Your task to perform on an android device: Open Youtube and go to "Your channel" Image 0: 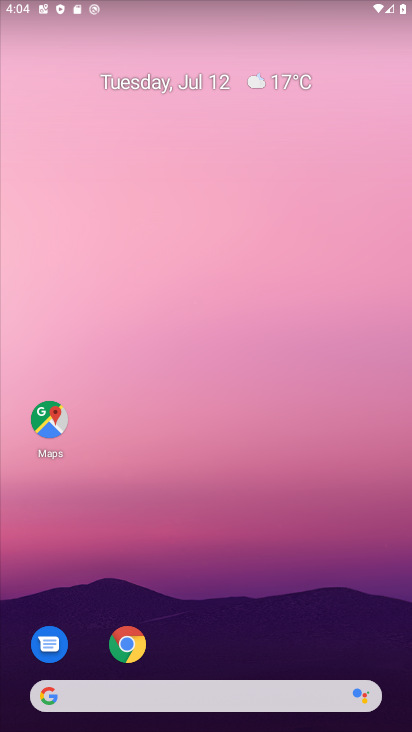
Step 0: drag from (267, 648) to (276, 119)
Your task to perform on an android device: Open Youtube and go to "Your channel" Image 1: 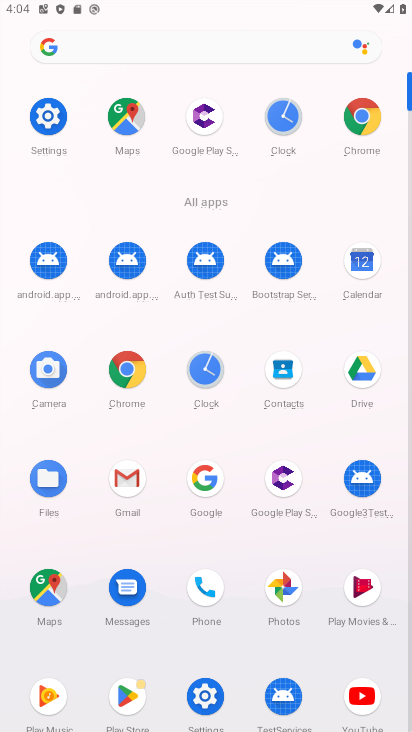
Step 1: click (368, 699)
Your task to perform on an android device: Open Youtube and go to "Your channel" Image 2: 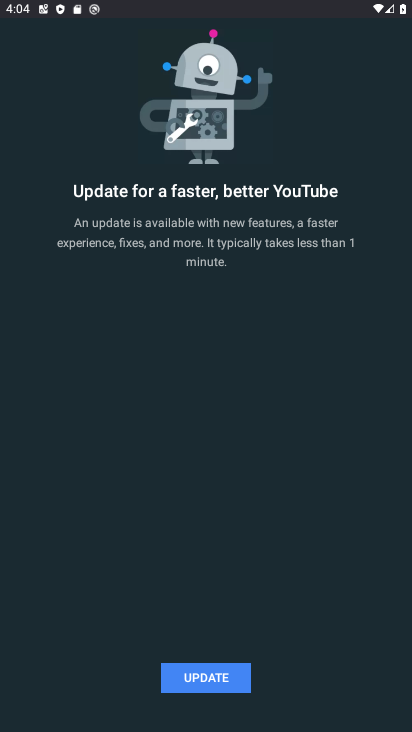
Step 2: click (232, 672)
Your task to perform on an android device: Open Youtube and go to "Your channel" Image 3: 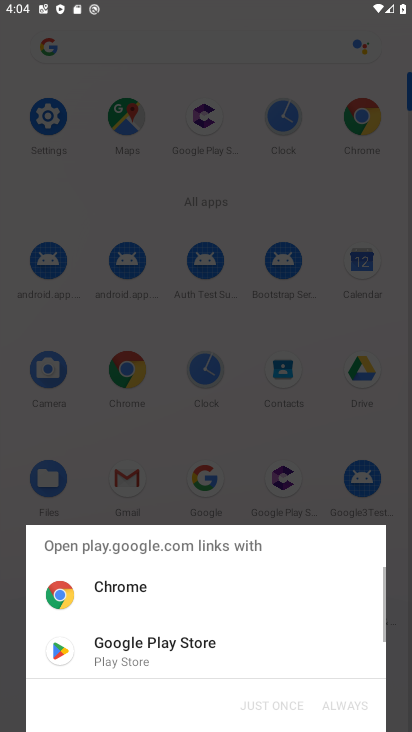
Step 3: click (191, 645)
Your task to perform on an android device: Open Youtube and go to "Your channel" Image 4: 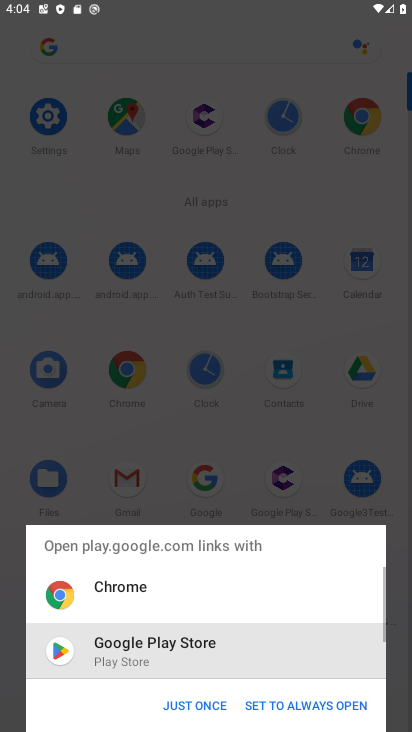
Step 4: click (199, 698)
Your task to perform on an android device: Open Youtube and go to "Your channel" Image 5: 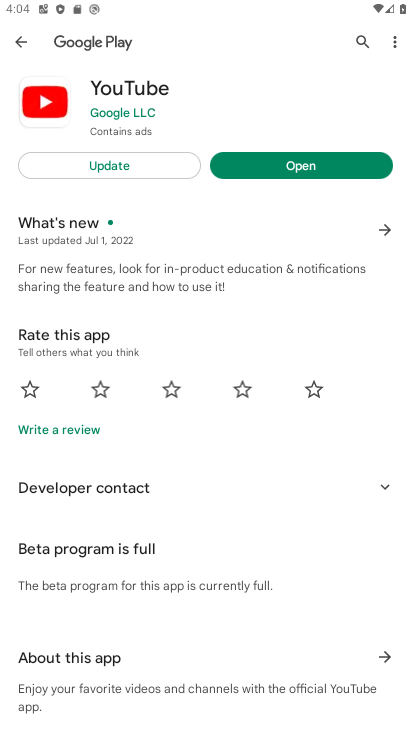
Step 5: click (155, 162)
Your task to perform on an android device: Open Youtube and go to "Your channel" Image 6: 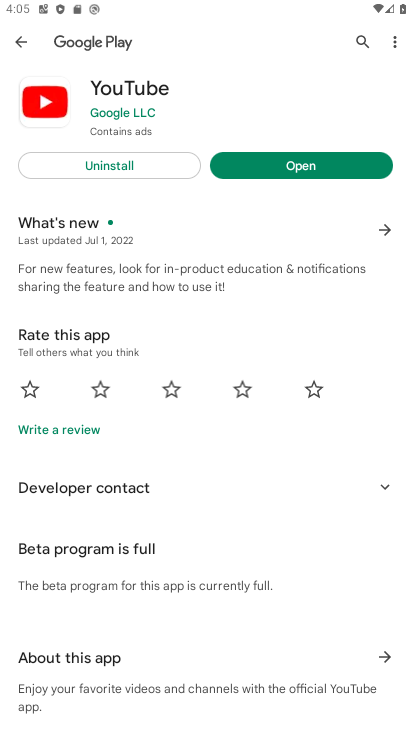
Step 6: click (307, 159)
Your task to perform on an android device: Open Youtube and go to "Your channel" Image 7: 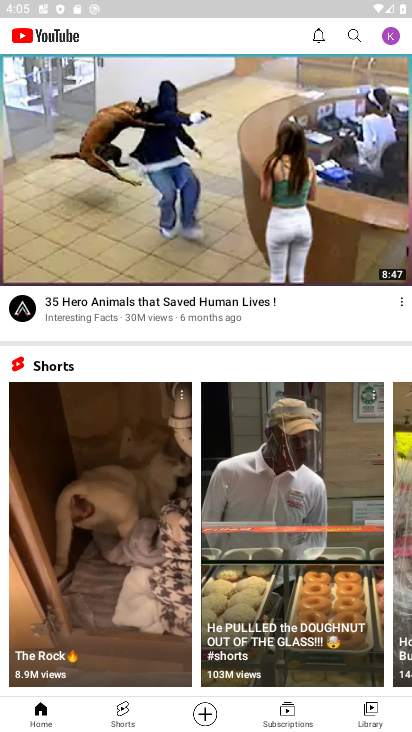
Step 7: click (391, 43)
Your task to perform on an android device: Open Youtube and go to "Your channel" Image 8: 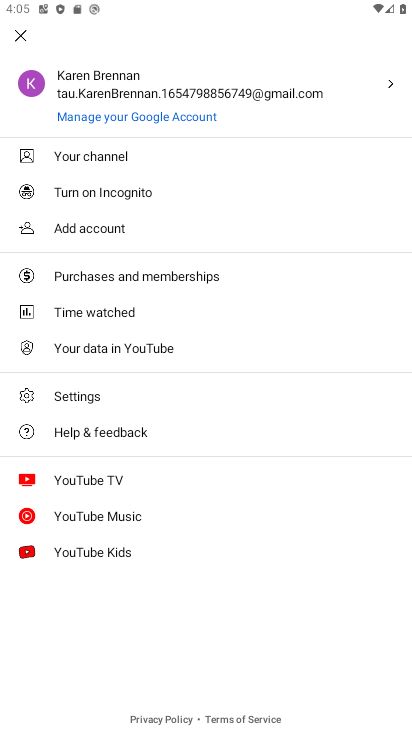
Step 8: click (72, 156)
Your task to perform on an android device: Open Youtube and go to "Your channel" Image 9: 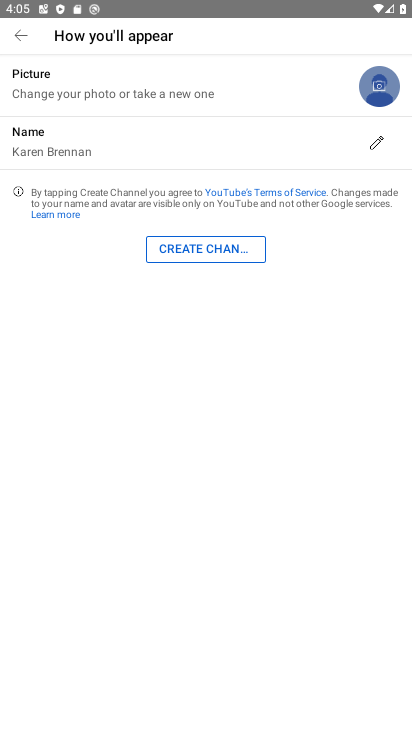
Step 9: task complete